Your task to perform on an android device: check out phone information Image 0: 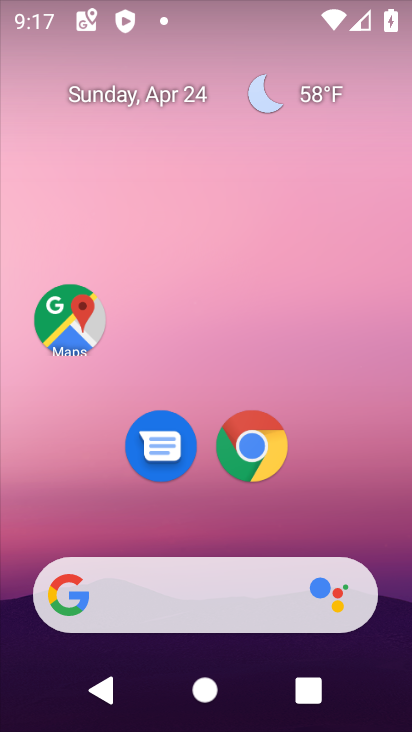
Step 0: press home button
Your task to perform on an android device: check out phone information Image 1: 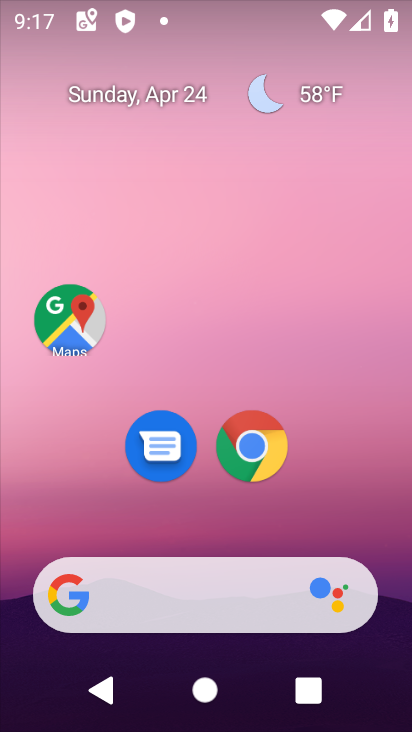
Step 1: drag from (193, 587) to (357, 92)
Your task to perform on an android device: check out phone information Image 2: 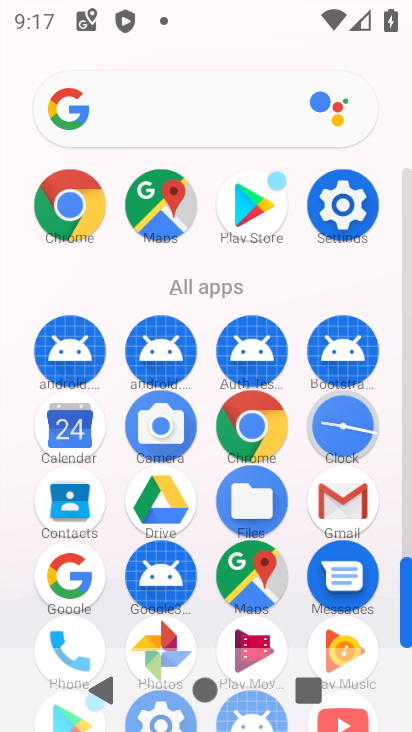
Step 2: click (345, 211)
Your task to perform on an android device: check out phone information Image 3: 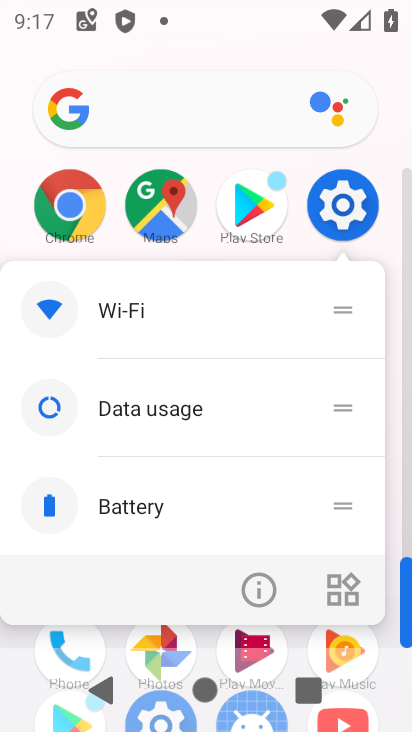
Step 3: click (351, 205)
Your task to perform on an android device: check out phone information Image 4: 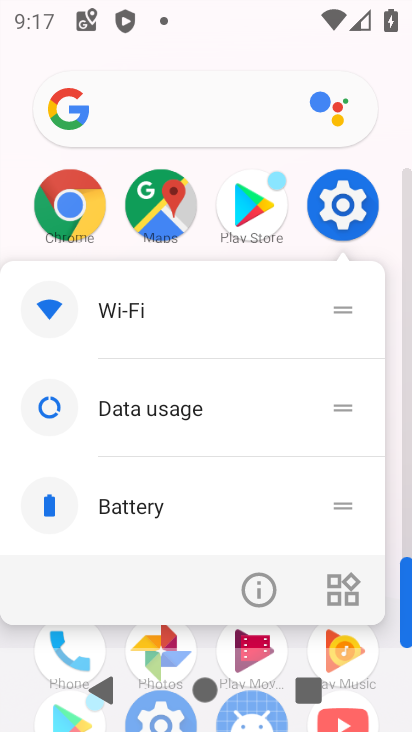
Step 4: click (340, 217)
Your task to perform on an android device: check out phone information Image 5: 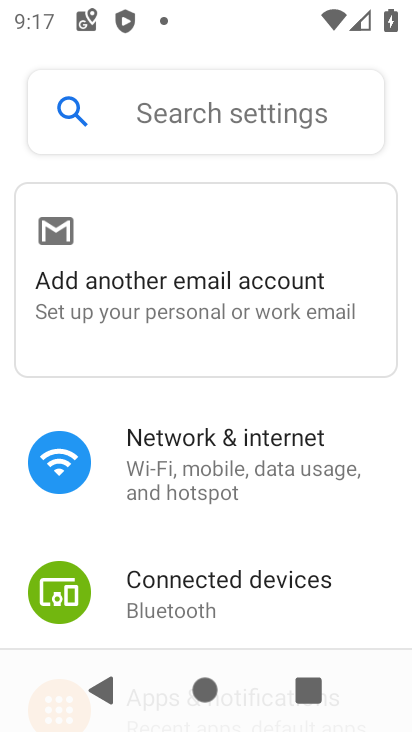
Step 5: drag from (205, 630) to (411, 82)
Your task to perform on an android device: check out phone information Image 6: 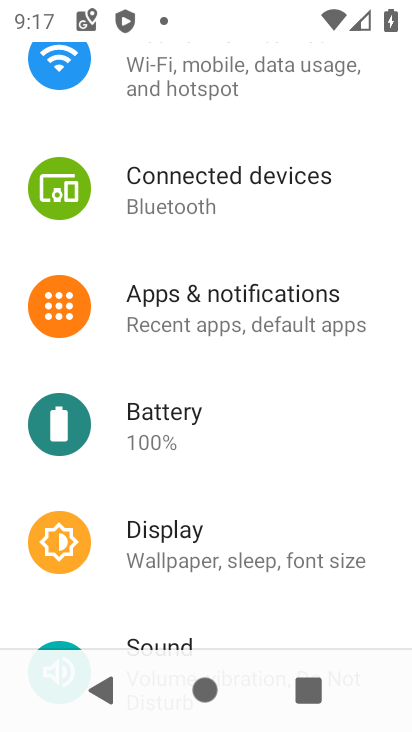
Step 6: drag from (258, 411) to (345, 92)
Your task to perform on an android device: check out phone information Image 7: 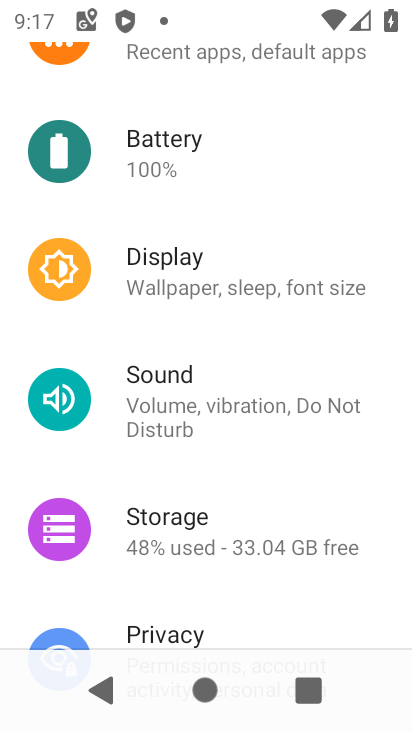
Step 7: drag from (215, 623) to (370, 92)
Your task to perform on an android device: check out phone information Image 8: 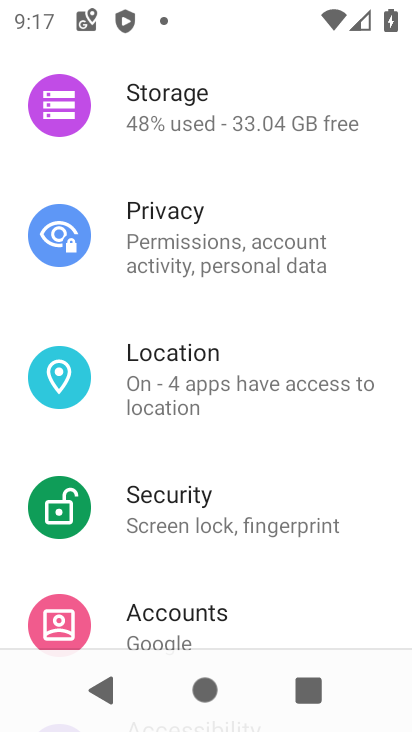
Step 8: drag from (227, 602) to (344, 208)
Your task to perform on an android device: check out phone information Image 9: 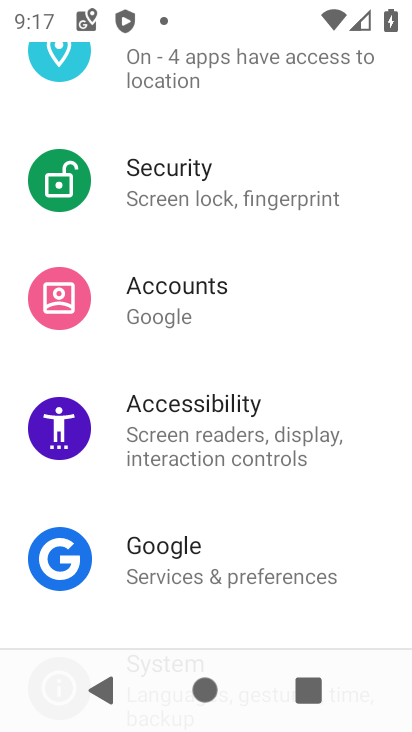
Step 9: drag from (171, 618) to (262, 354)
Your task to perform on an android device: check out phone information Image 10: 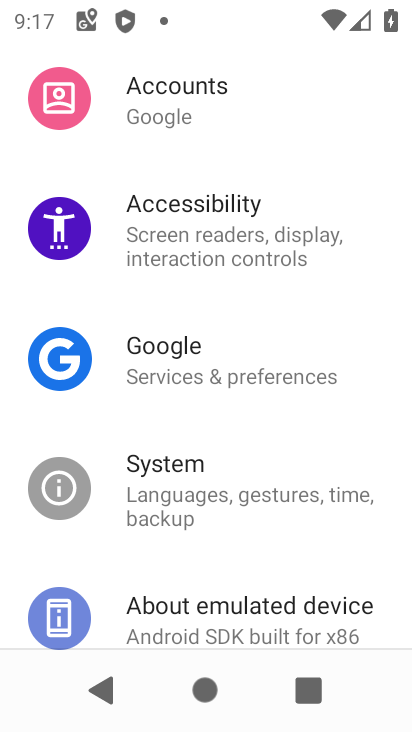
Step 10: click (268, 604)
Your task to perform on an android device: check out phone information Image 11: 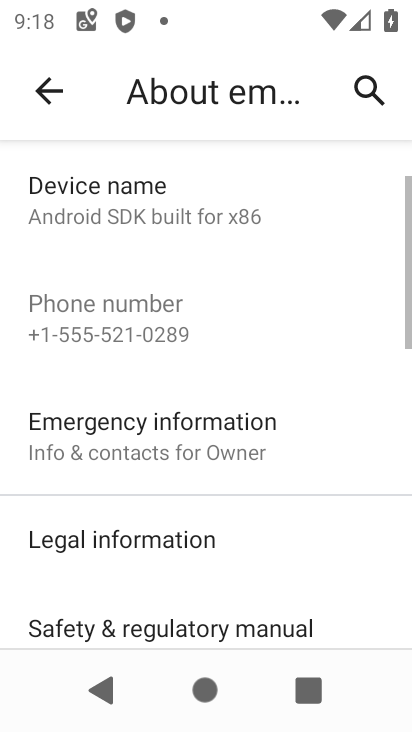
Step 11: task complete